Your task to perform on an android device: turn off improve location accuracy Image 0: 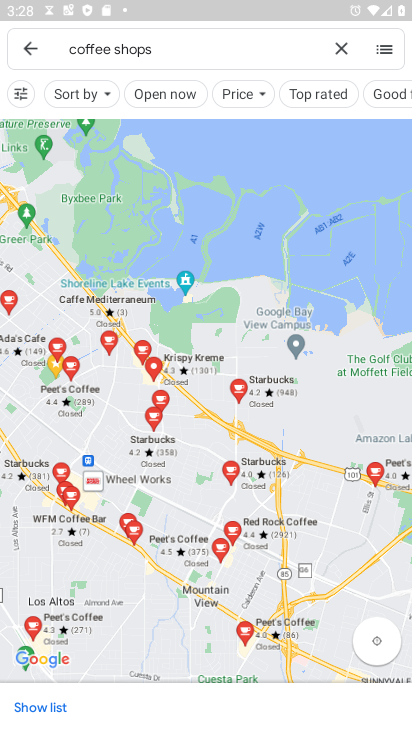
Step 0: press home button
Your task to perform on an android device: turn off improve location accuracy Image 1: 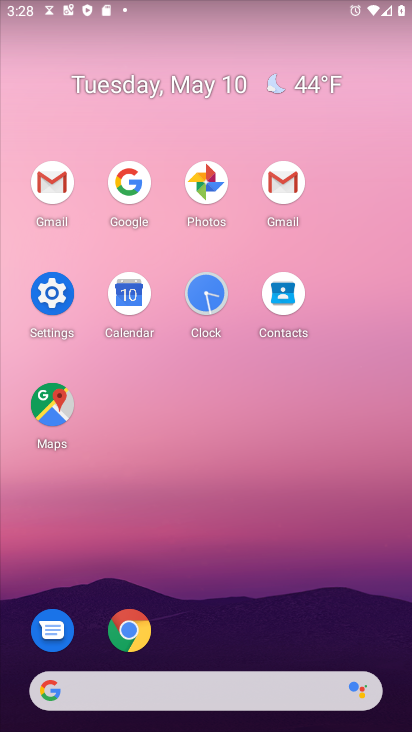
Step 1: click (56, 301)
Your task to perform on an android device: turn off improve location accuracy Image 2: 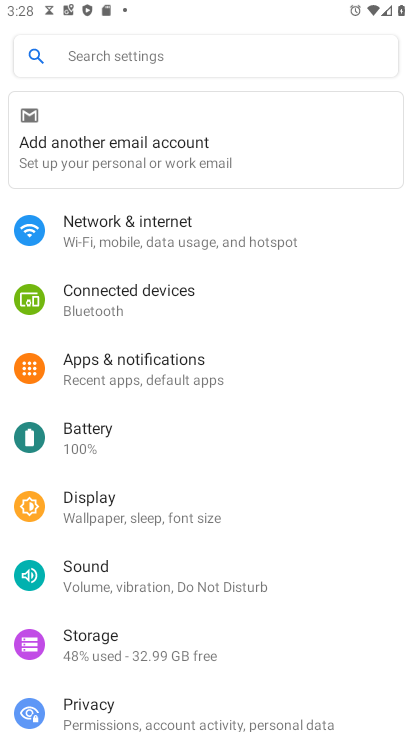
Step 2: drag from (227, 659) to (266, 308)
Your task to perform on an android device: turn off improve location accuracy Image 3: 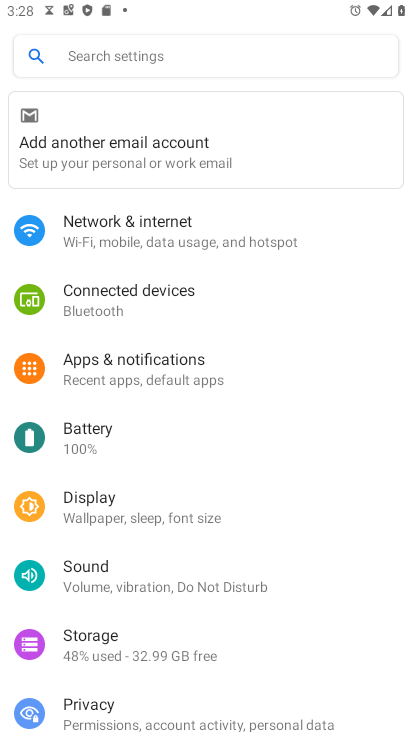
Step 3: drag from (267, 670) to (288, 302)
Your task to perform on an android device: turn off improve location accuracy Image 4: 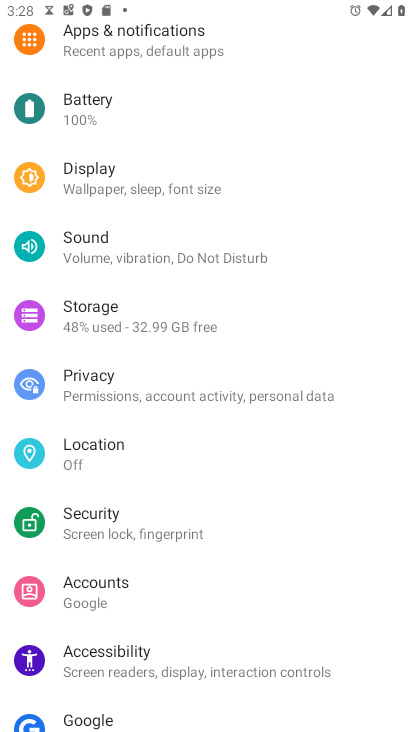
Step 4: click (156, 450)
Your task to perform on an android device: turn off improve location accuracy Image 5: 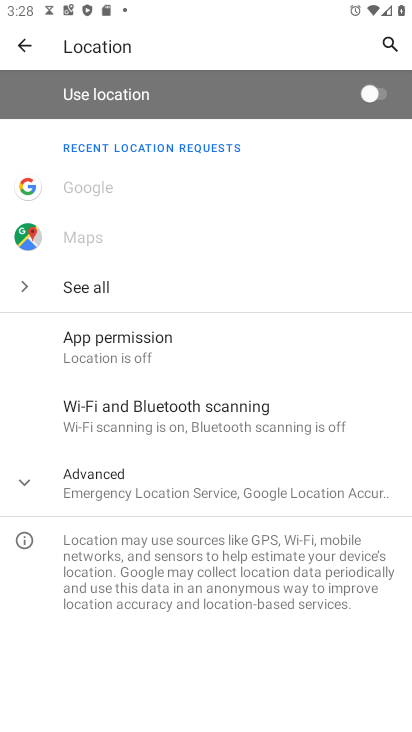
Step 5: click (186, 474)
Your task to perform on an android device: turn off improve location accuracy Image 6: 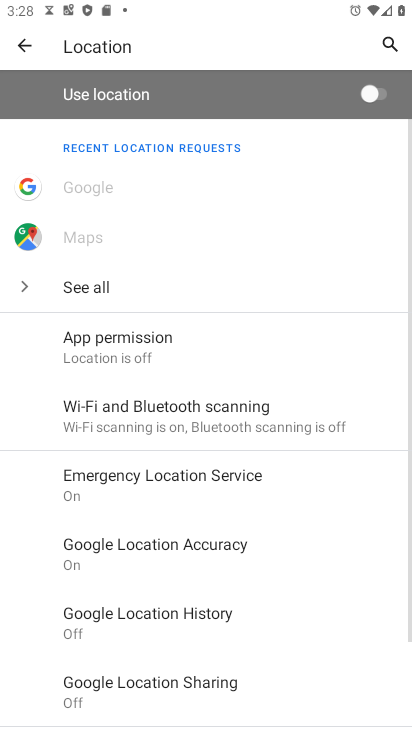
Step 6: click (175, 564)
Your task to perform on an android device: turn off improve location accuracy Image 7: 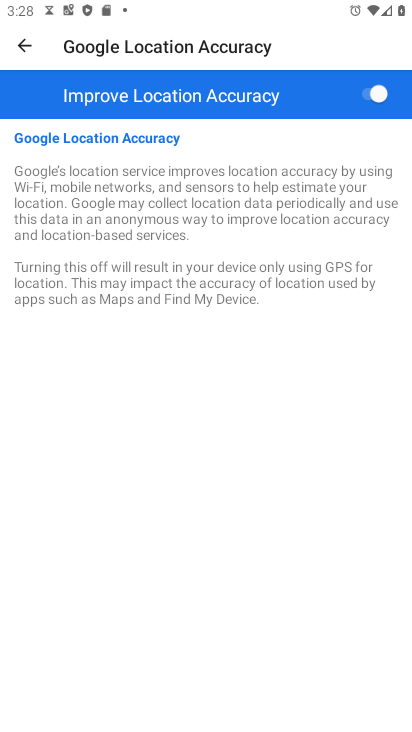
Step 7: click (374, 101)
Your task to perform on an android device: turn off improve location accuracy Image 8: 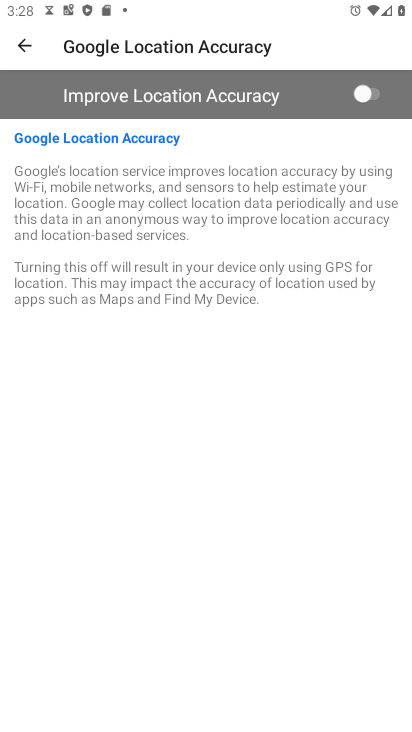
Step 8: task complete